Your task to perform on an android device: open app "Expedia: Hotels, Flights & Car" (install if not already installed), go to login, and select forgot password Image 0: 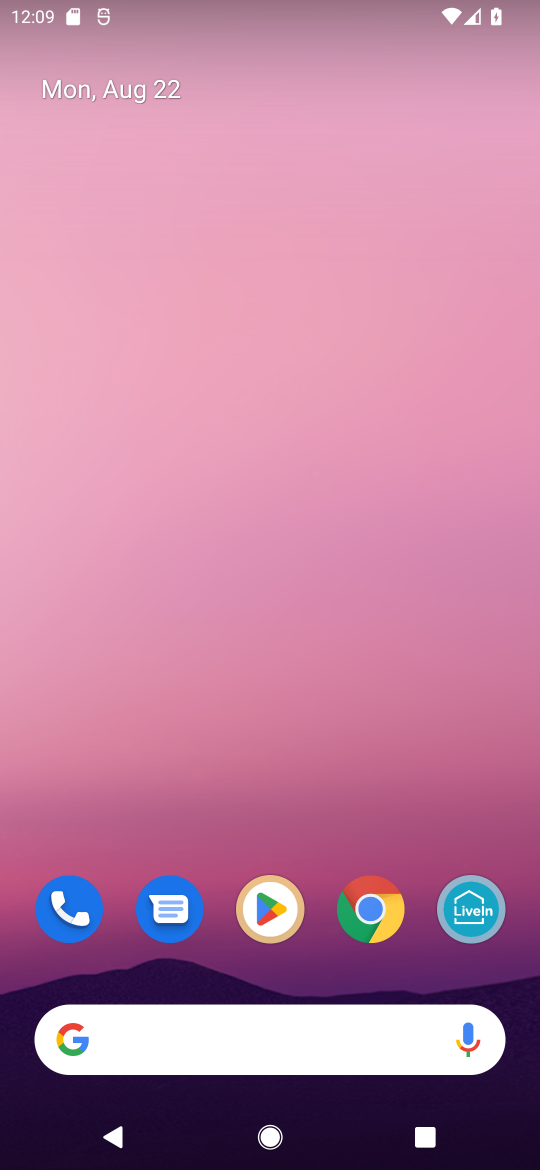
Step 0: click (274, 900)
Your task to perform on an android device: open app "Expedia: Hotels, Flights & Car" (install if not already installed), go to login, and select forgot password Image 1: 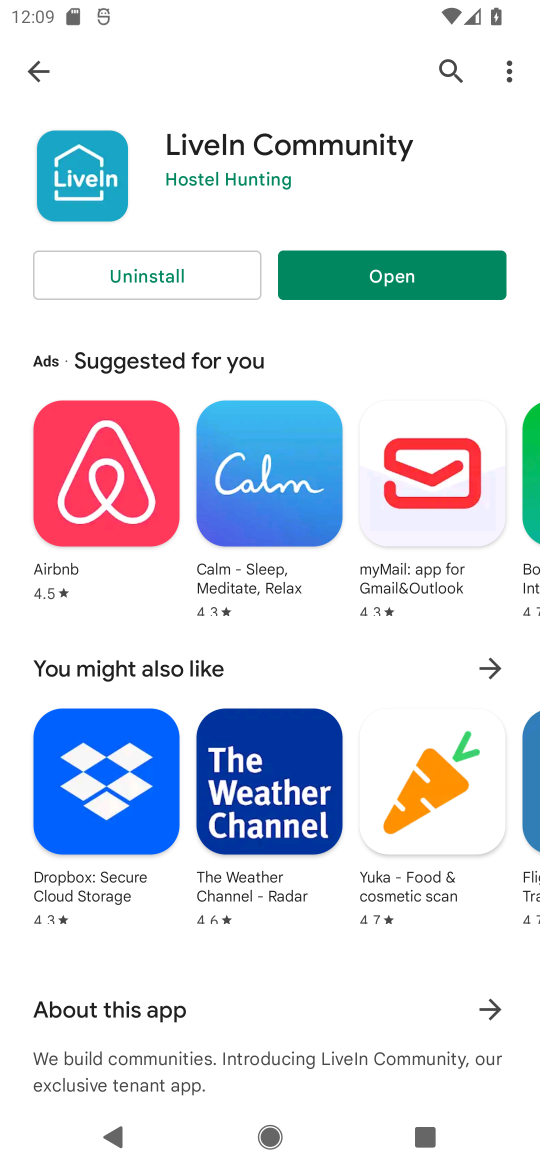
Step 1: click (439, 77)
Your task to perform on an android device: open app "Expedia: Hotels, Flights & Car" (install if not already installed), go to login, and select forgot password Image 2: 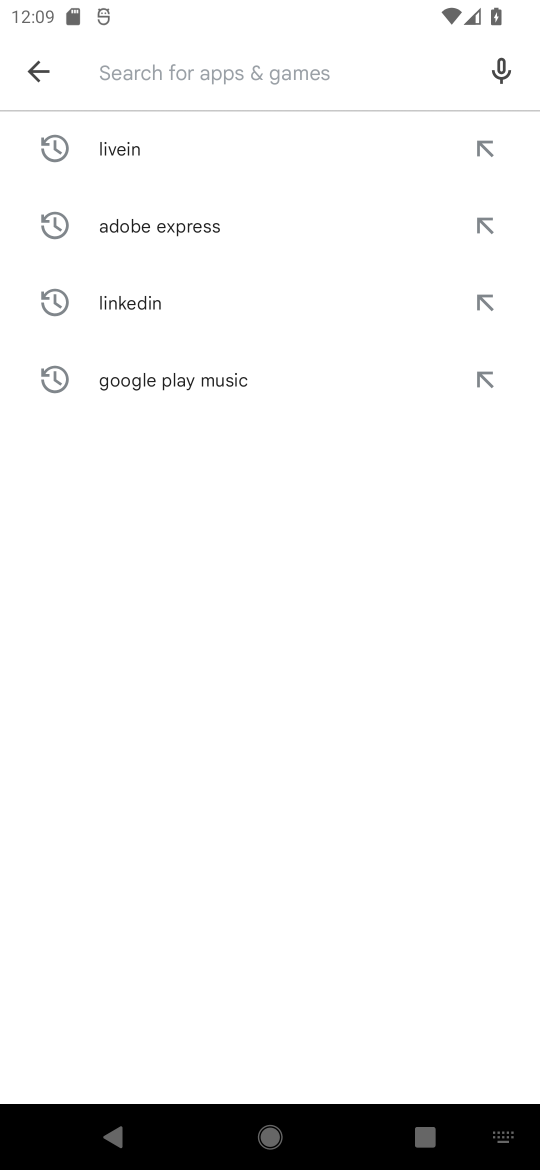
Step 2: click (125, 80)
Your task to perform on an android device: open app "Expedia: Hotels, Flights & Car" (install if not already installed), go to login, and select forgot password Image 3: 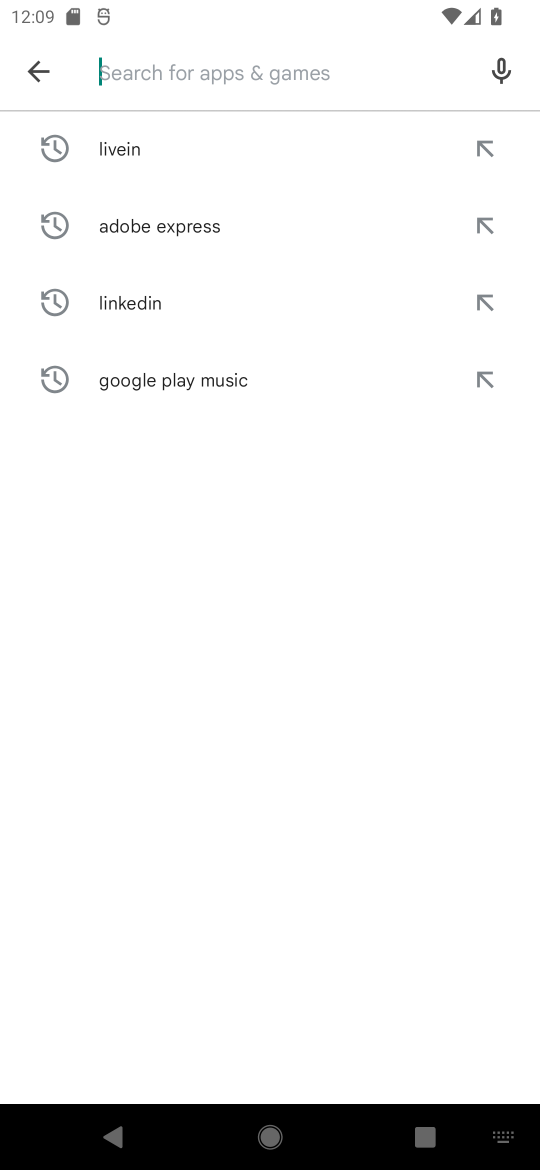
Step 3: type "expedia"
Your task to perform on an android device: open app "Expedia: Hotels, Flights & Car" (install if not already installed), go to login, and select forgot password Image 4: 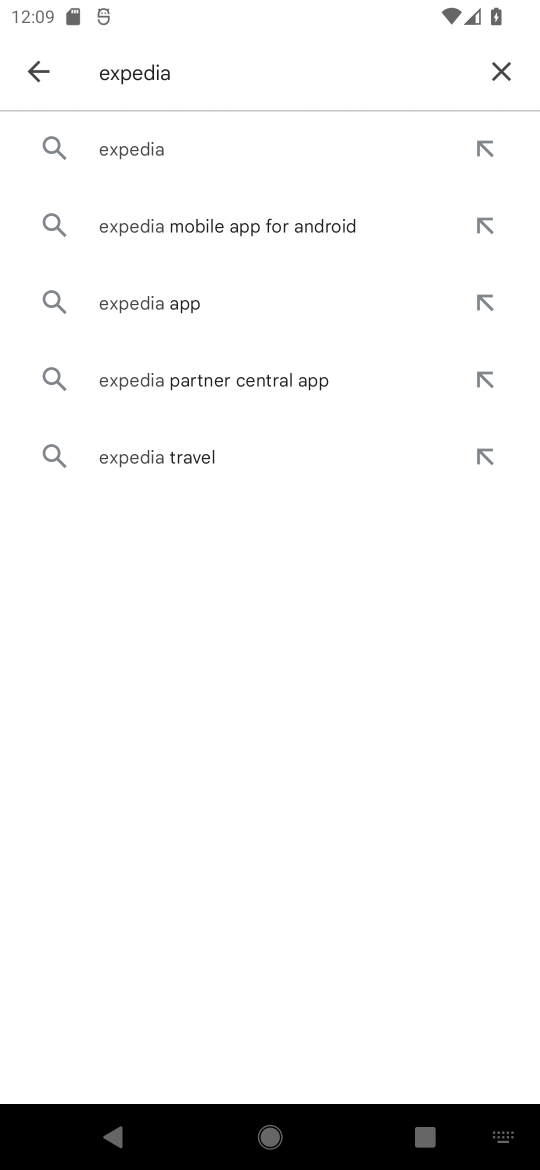
Step 4: click (206, 161)
Your task to perform on an android device: open app "Expedia: Hotels, Flights & Car" (install if not already installed), go to login, and select forgot password Image 5: 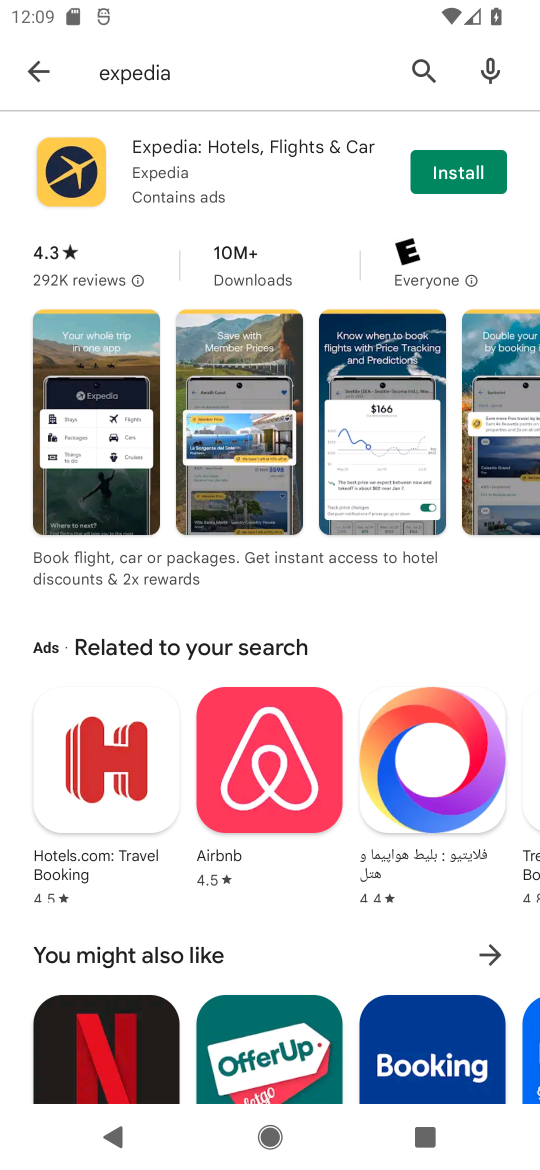
Step 5: click (465, 173)
Your task to perform on an android device: open app "Expedia: Hotels, Flights & Car" (install if not already installed), go to login, and select forgot password Image 6: 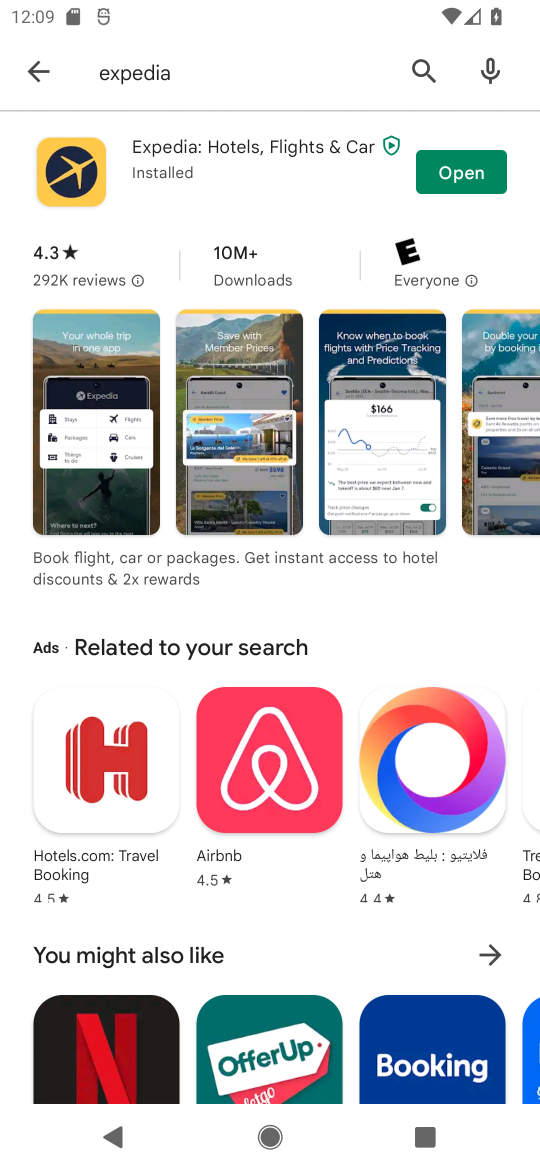
Step 6: click (498, 179)
Your task to perform on an android device: open app "Expedia: Hotels, Flights & Car" (install if not already installed), go to login, and select forgot password Image 7: 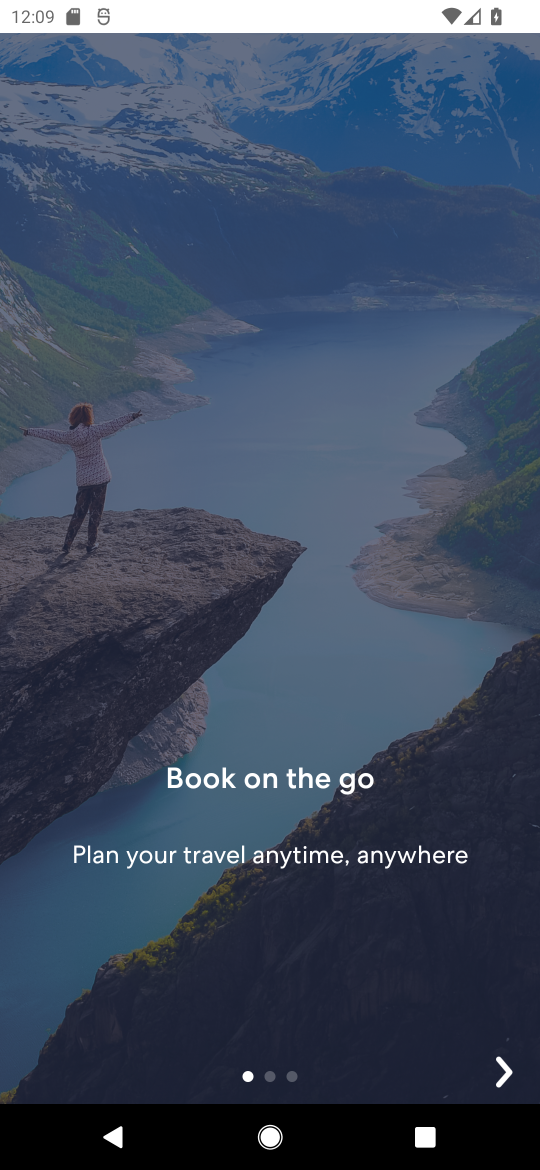
Step 7: click (505, 1085)
Your task to perform on an android device: open app "Expedia: Hotels, Flights & Car" (install if not already installed), go to login, and select forgot password Image 8: 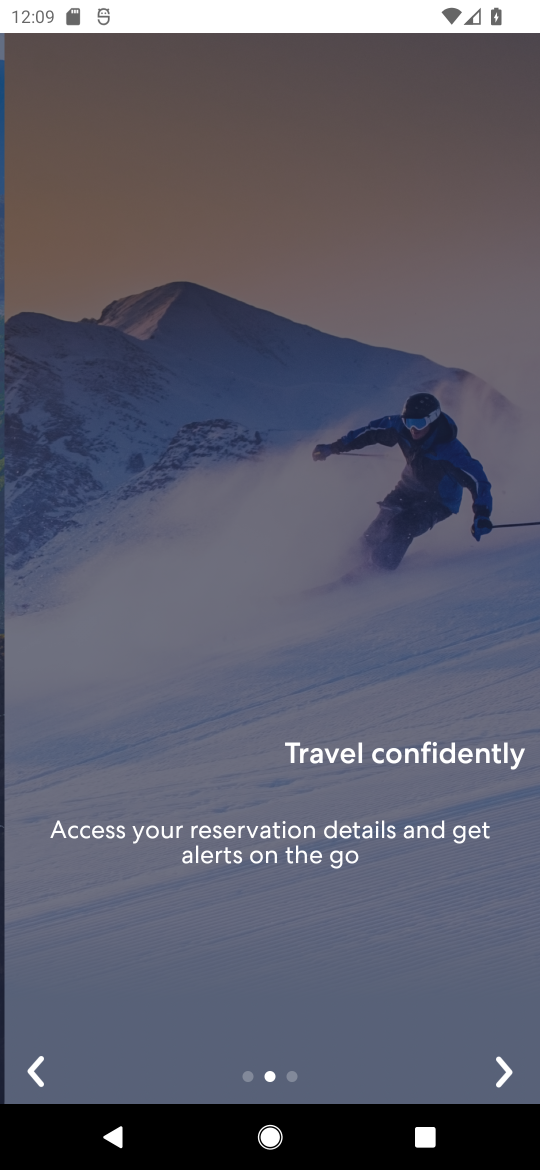
Step 8: click (502, 1066)
Your task to perform on an android device: open app "Expedia: Hotels, Flights & Car" (install if not already installed), go to login, and select forgot password Image 9: 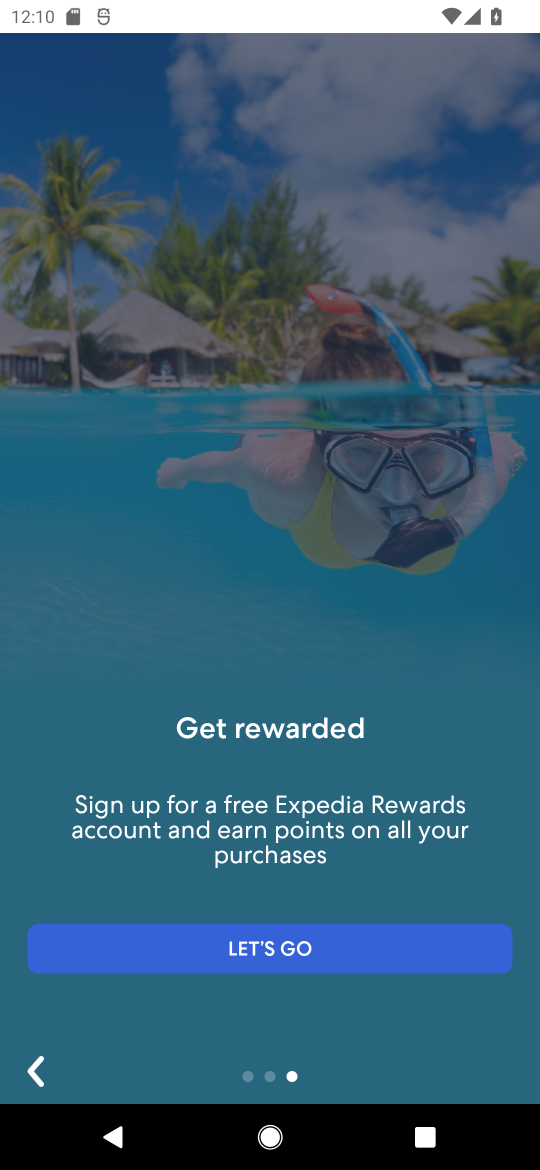
Step 9: click (290, 936)
Your task to perform on an android device: open app "Expedia: Hotels, Flights & Car" (install if not already installed), go to login, and select forgot password Image 10: 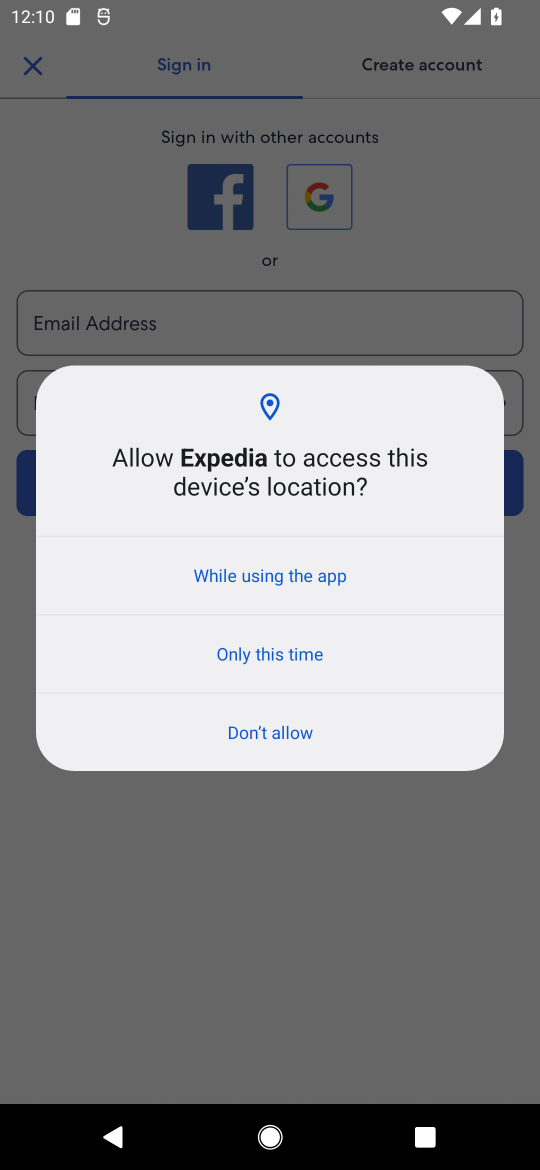
Step 10: click (276, 575)
Your task to perform on an android device: open app "Expedia: Hotels, Flights & Car" (install if not already installed), go to login, and select forgot password Image 11: 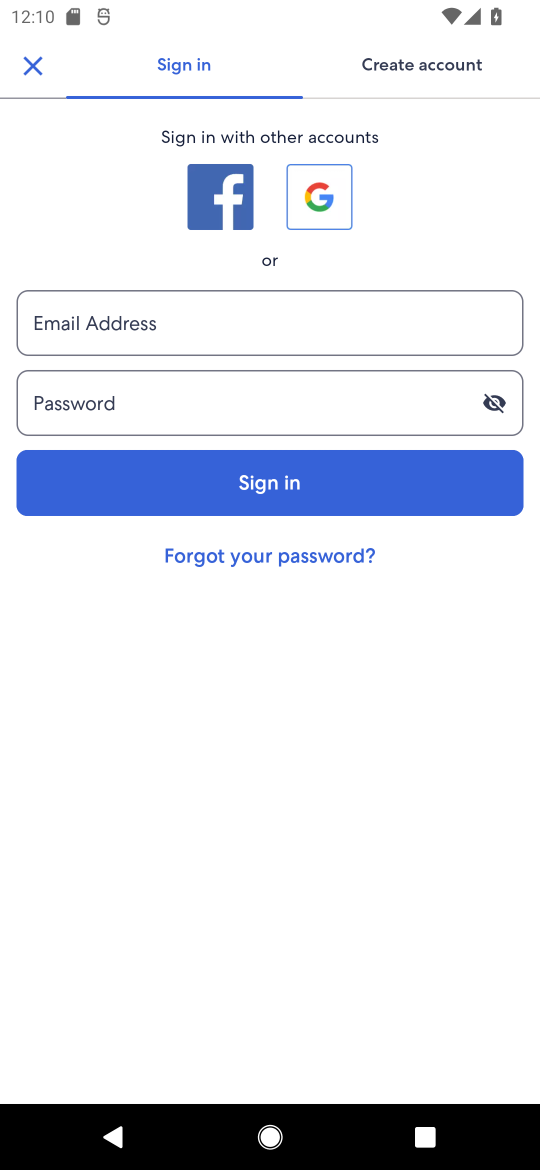
Step 11: click (268, 551)
Your task to perform on an android device: open app "Expedia: Hotels, Flights & Car" (install if not already installed), go to login, and select forgot password Image 12: 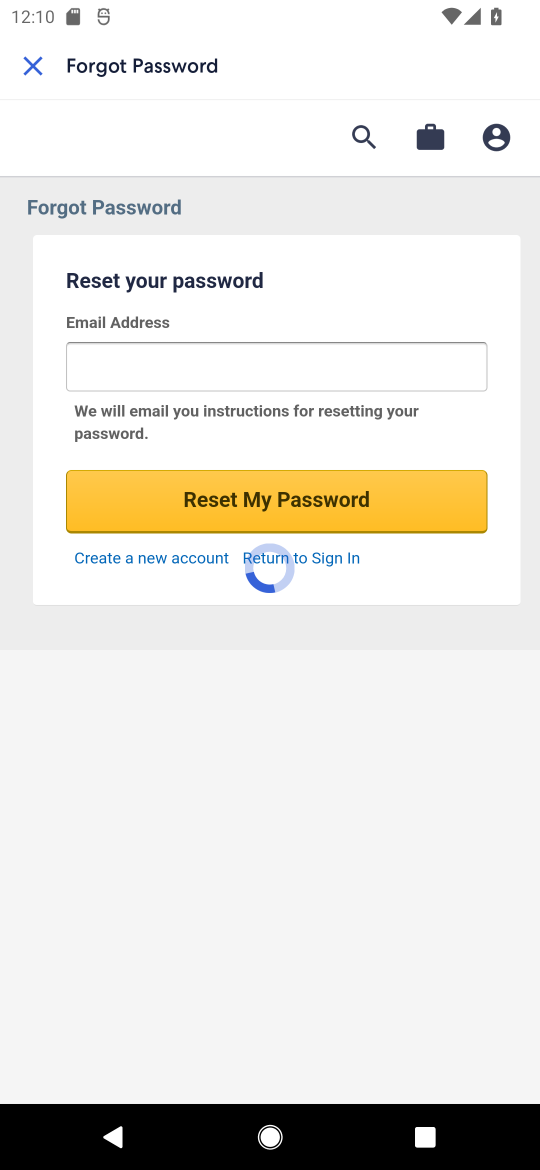
Step 12: task complete